Your task to perform on an android device: What's on my calendar tomorrow? Image 0: 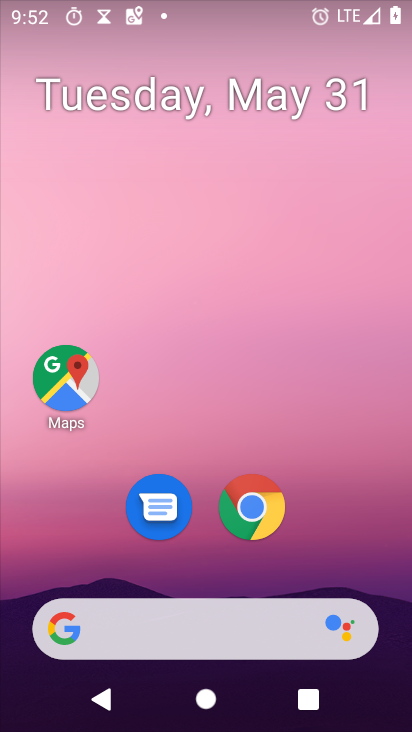
Step 0: drag from (25, 574) to (271, 202)
Your task to perform on an android device: What's on my calendar tomorrow? Image 1: 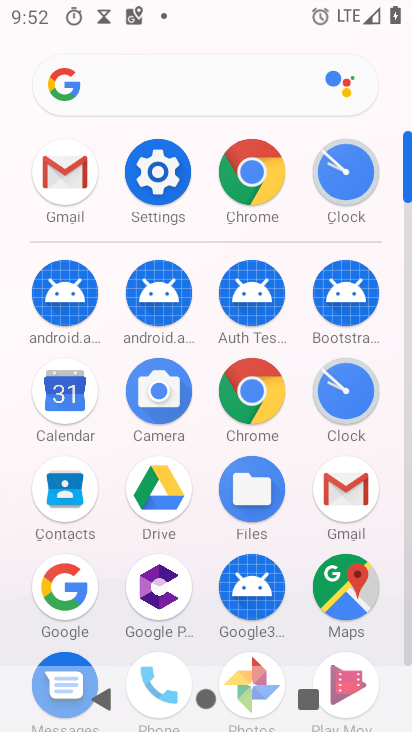
Step 1: click (56, 389)
Your task to perform on an android device: What's on my calendar tomorrow? Image 2: 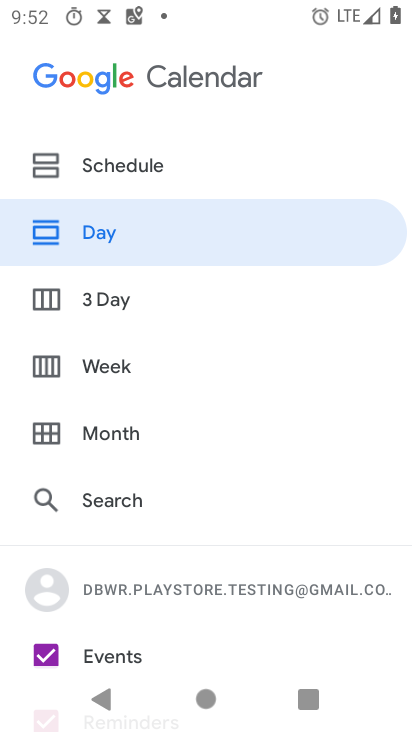
Step 2: click (69, 168)
Your task to perform on an android device: What's on my calendar tomorrow? Image 3: 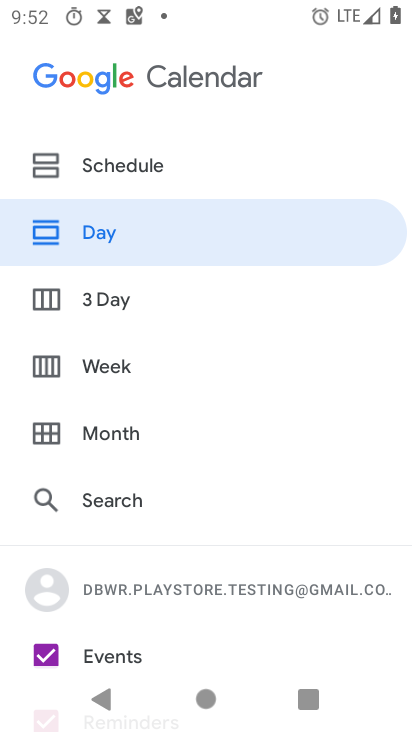
Step 3: task complete